Your task to perform on an android device: install app "Adobe Express: Graphic Design" Image 0: 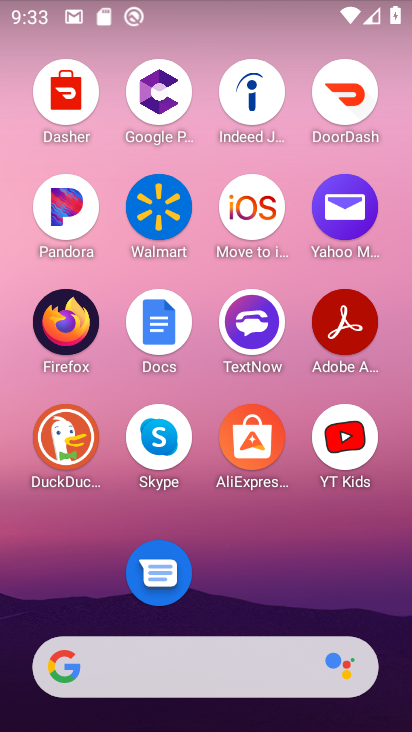
Step 0: drag from (246, 579) to (264, 7)
Your task to perform on an android device: install app "Adobe Express: Graphic Design" Image 1: 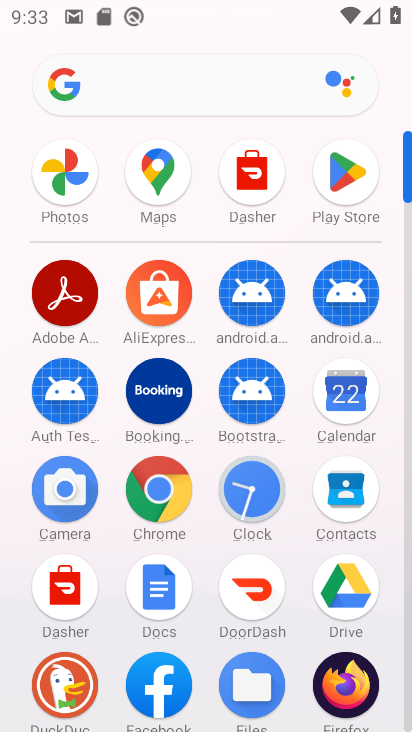
Step 1: click (353, 177)
Your task to perform on an android device: install app "Adobe Express: Graphic Design" Image 2: 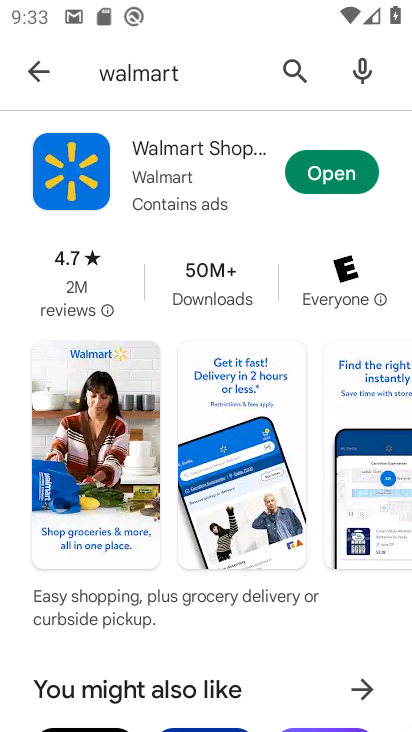
Step 2: click (161, 80)
Your task to perform on an android device: install app "Adobe Express: Graphic Design" Image 3: 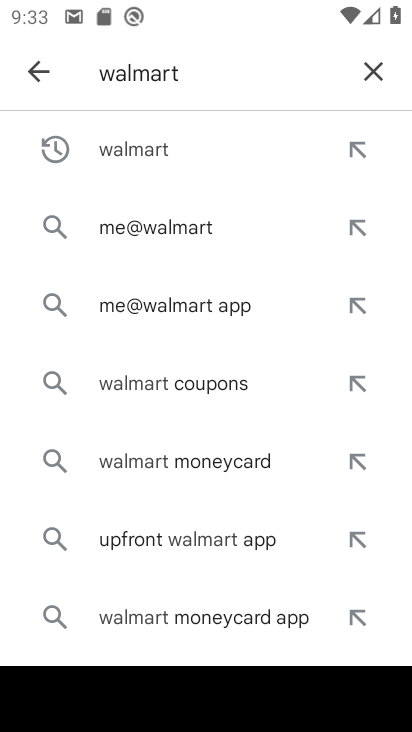
Step 3: click (374, 81)
Your task to perform on an android device: install app "Adobe Express: Graphic Design" Image 4: 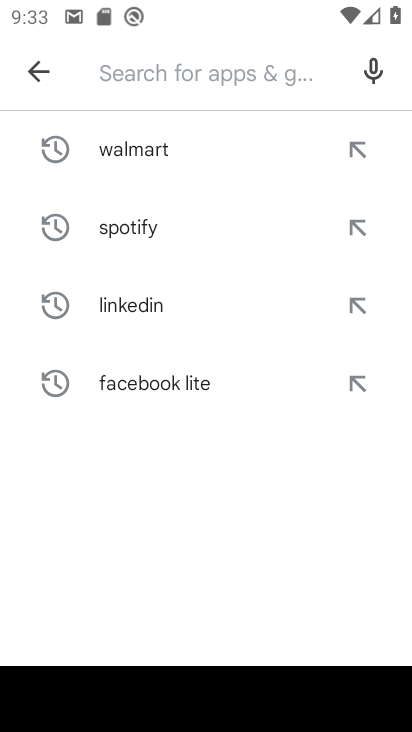
Step 4: type "Adobe Express"
Your task to perform on an android device: install app "Adobe Express: Graphic Design" Image 5: 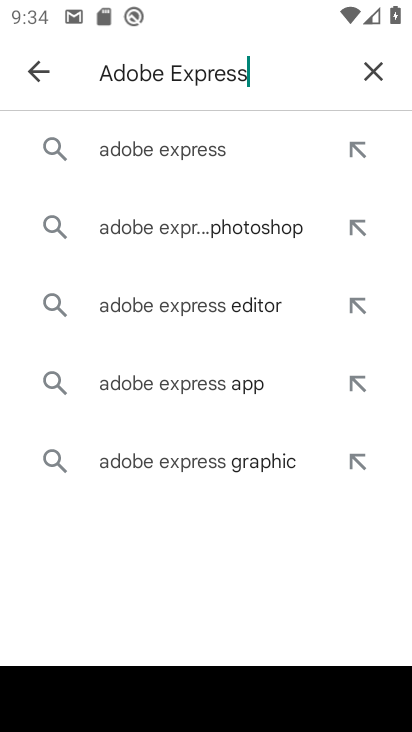
Step 5: click (121, 164)
Your task to perform on an android device: install app "Adobe Express: Graphic Design" Image 6: 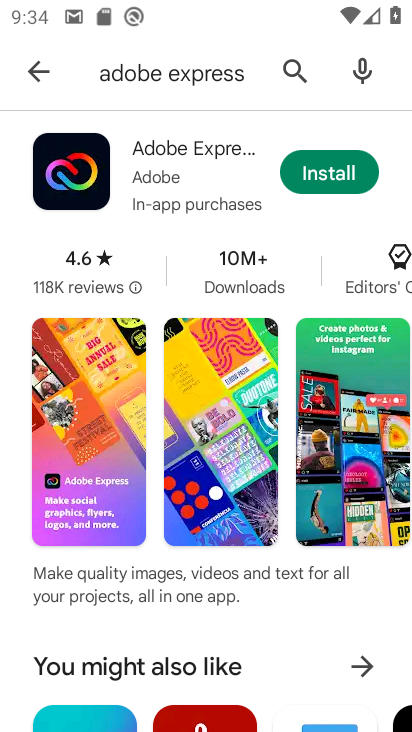
Step 6: click (336, 170)
Your task to perform on an android device: install app "Adobe Express: Graphic Design" Image 7: 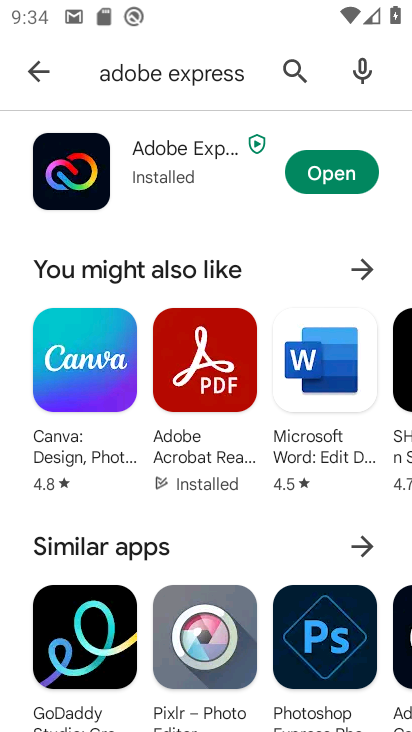
Step 7: click (337, 173)
Your task to perform on an android device: install app "Adobe Express: Graphic Design" Image 8: 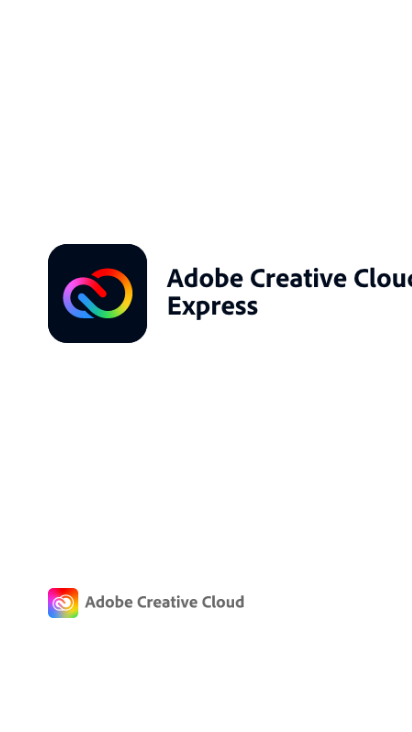
Step 8: task complete